Your task to perform on an android device: move a message to another label in the gmail app Image 0: 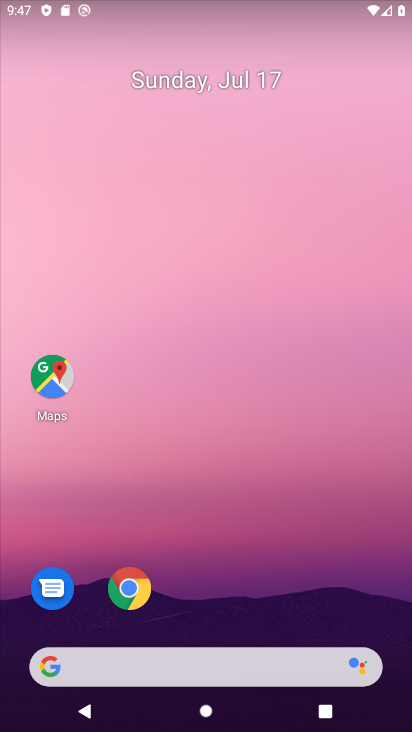
Step 0: drag from (209, 630) to (184, 87)
Your task to perform on an android device: move a message to another label in the gmail app Image 1: 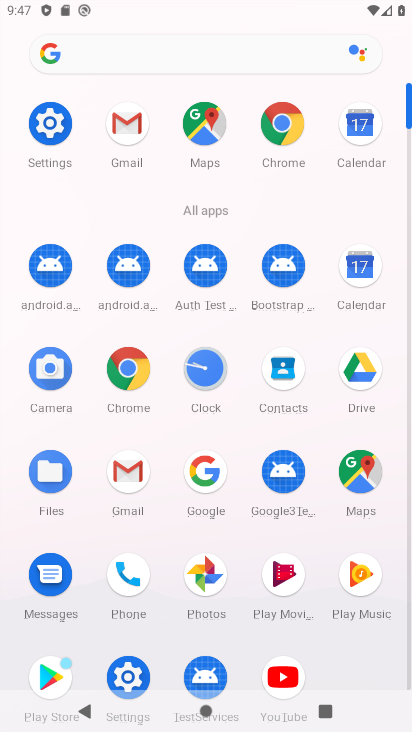
Step 1: click (139, 469)
Your task to perform on an android device: move a message to another label in the gmail app Image 2: 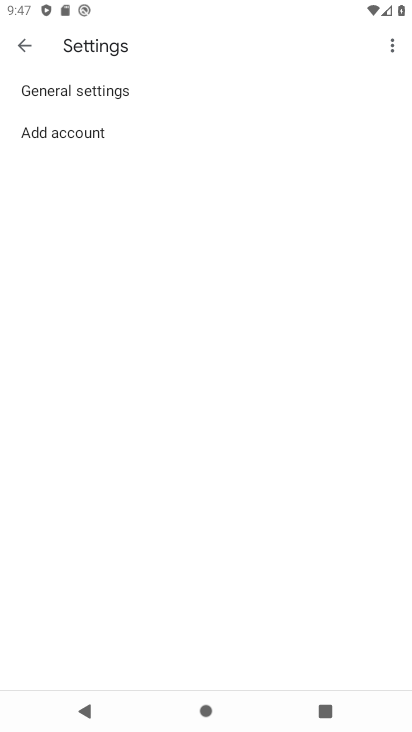
Step 2: click (19, 45)
Your task to perform on an android device: move a message to another label in the gmail app Image 3: 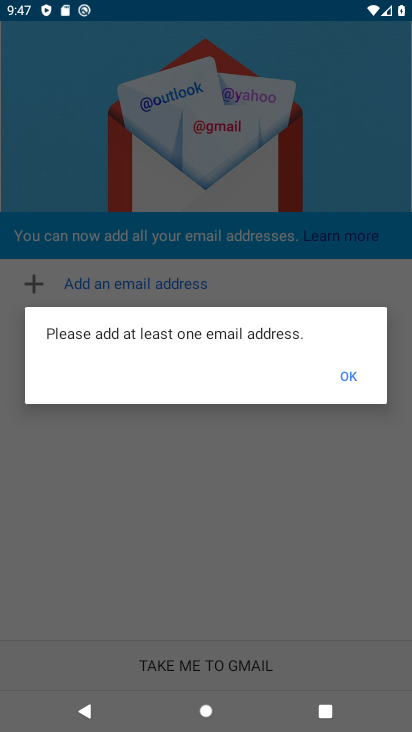
Step 3: task complete